Your task to perform on an android device: Go to accessibility settings Image 0: 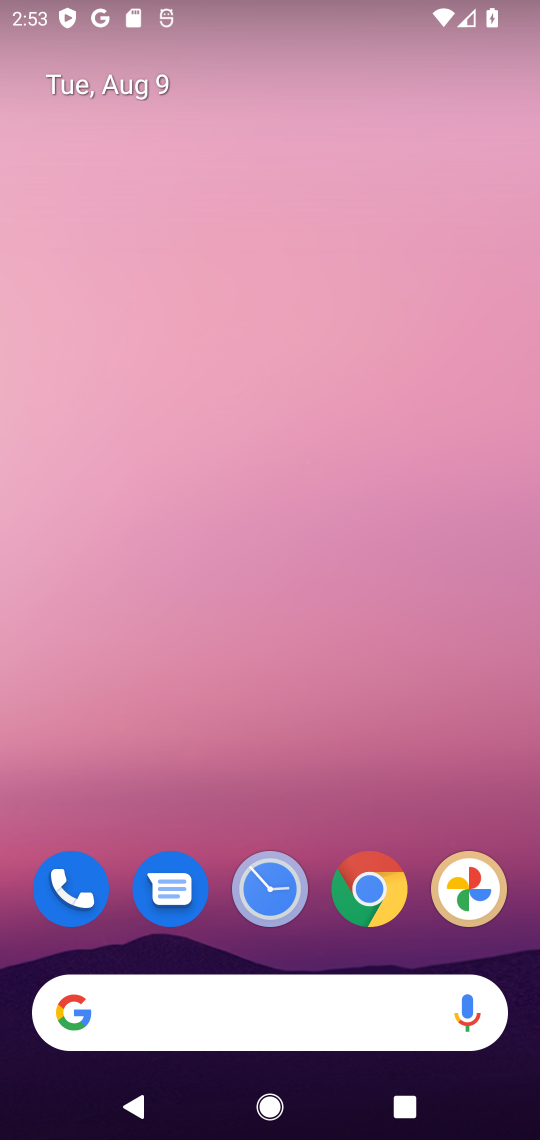
Step 0: drag from (266, 765) to (250, 0)
Your task to perform on an android device: Go to accessibility settings Image 1: 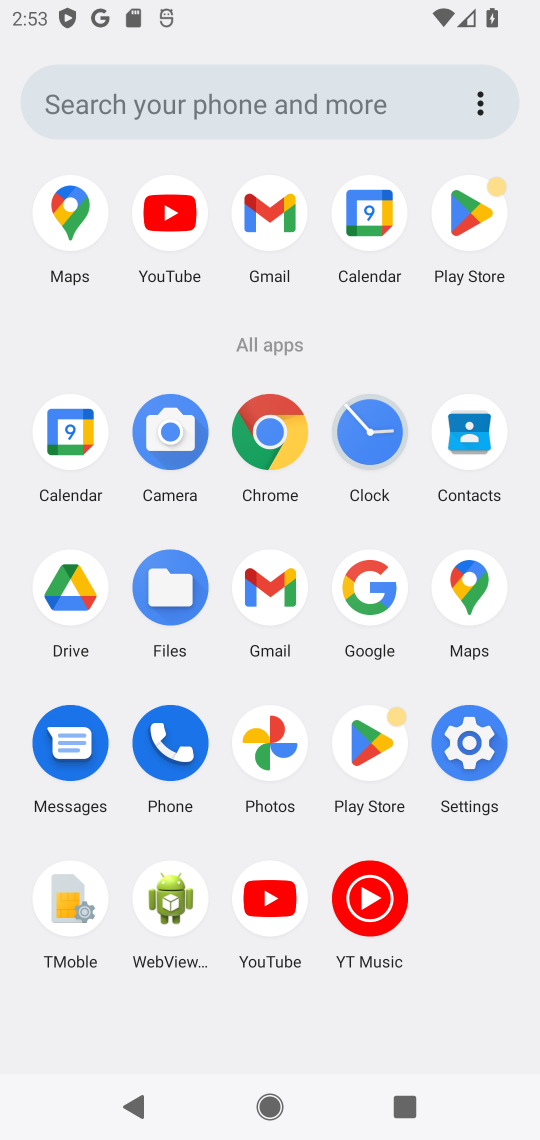
Step 1: click (466, 738)
Your task to perform on an android device: Go to accessibility settings Image 2: 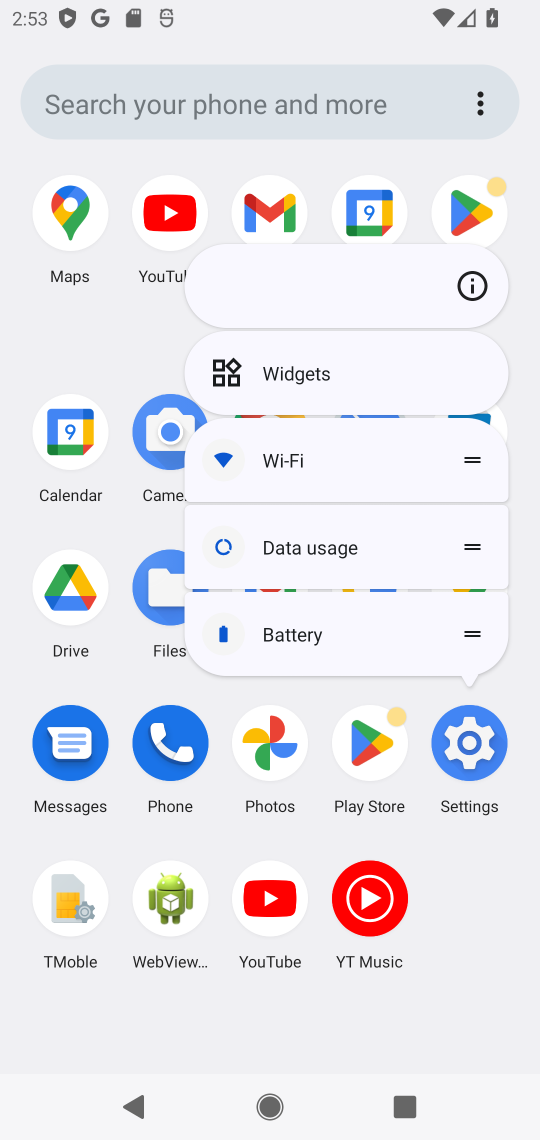
Step 2: click (466, 738)
Your task to perform on an android device: Go to accessibility settings Image 3: 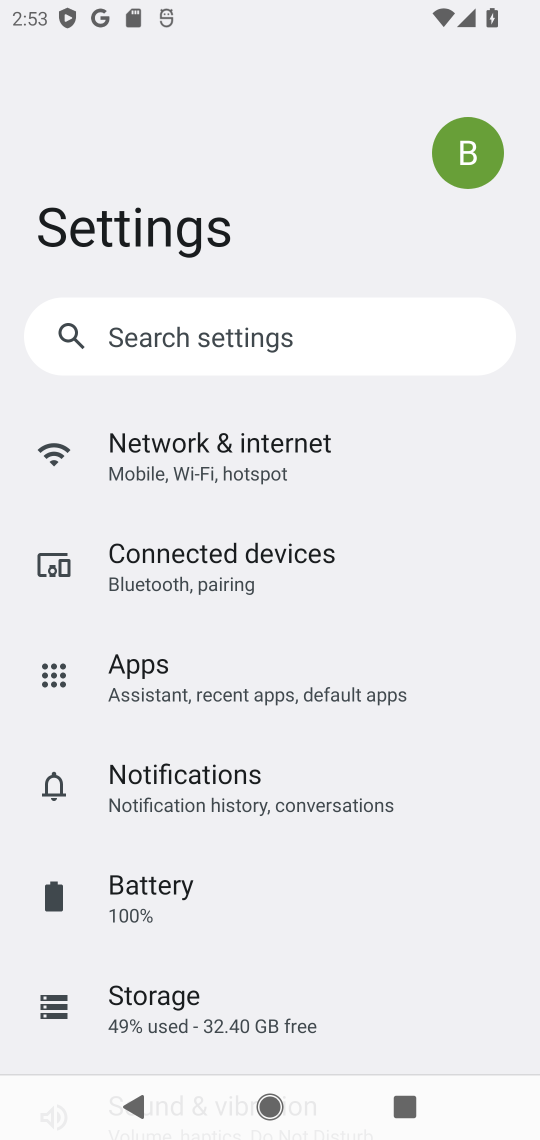
Step 3: drag from (271, 916) to (293, 2)
Your task to perform on an android device: Go to accessibility settings Image 4: 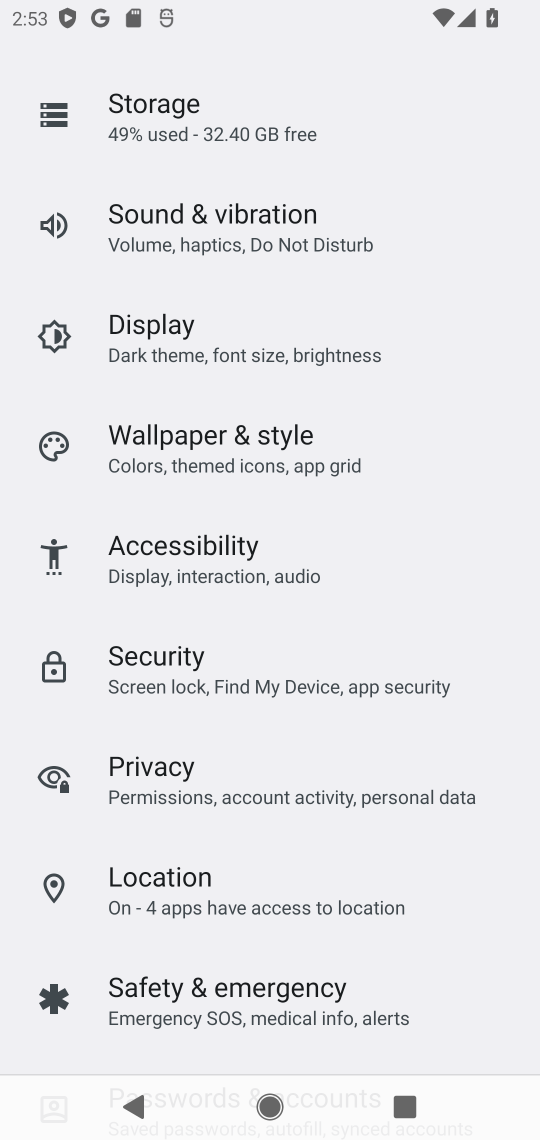
Step 4: click (280, 549)
Your task to perform on an android device: Go to accessibility settings Image 5: 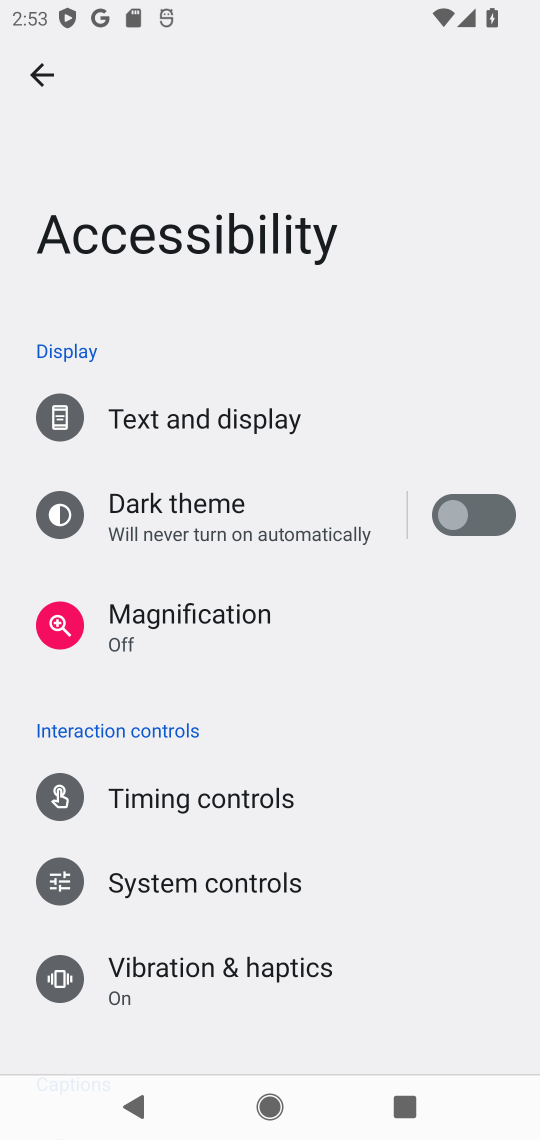
Step 5: task complete